Your task to perform on an android device: check google app version Image 0: 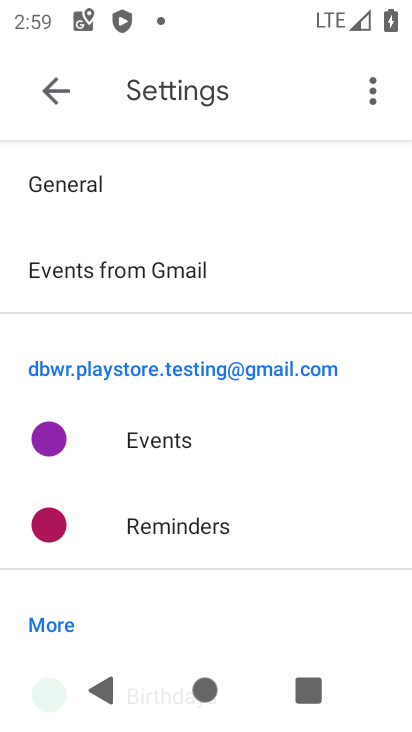
Step 0: press home button
Your task to perform on an android device: check google app version Image 1: 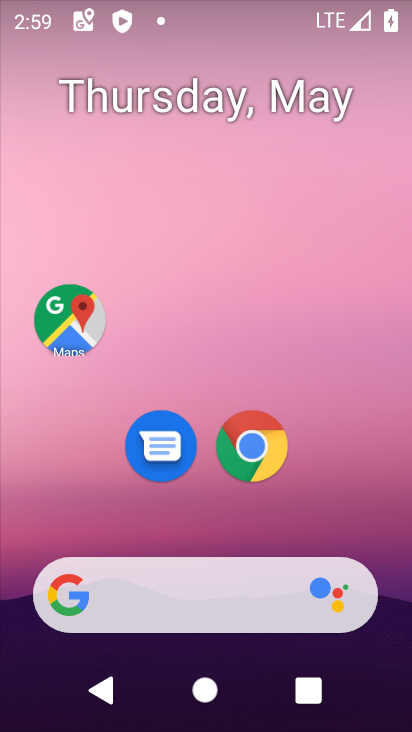
Step 1: drag from (213, 526) to (280, 120)
Your task to perform on an android device: check google app version Image 2: 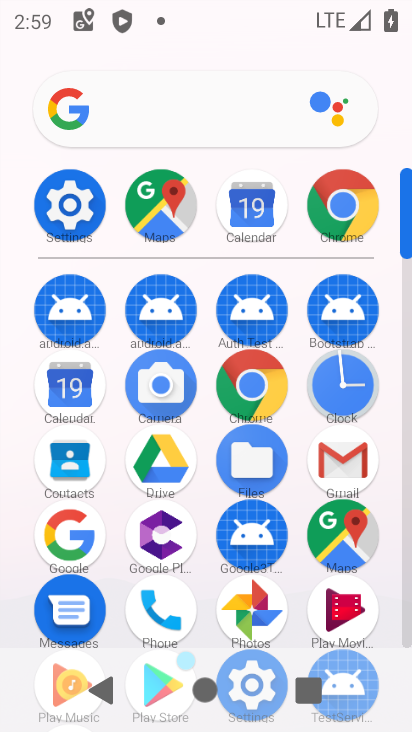
Step 2: click (72, 543)
Your task to perform on an android device: check google app version Image 3: 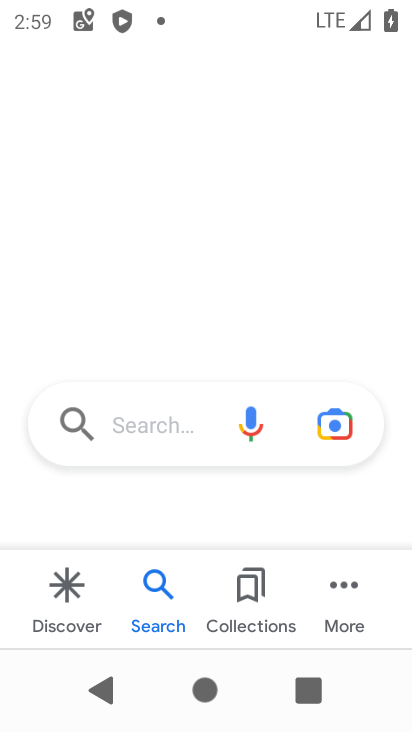
Step 3: click (359, 613)
Your task to perform on an android device: check google app version Image 4: 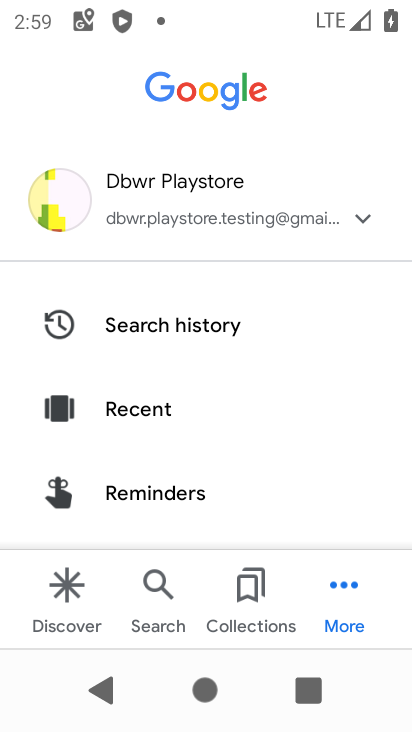
Step 4: drag from (171, 504) to (201, 124)
Your task to perform on an android device: check google app version Image 5: 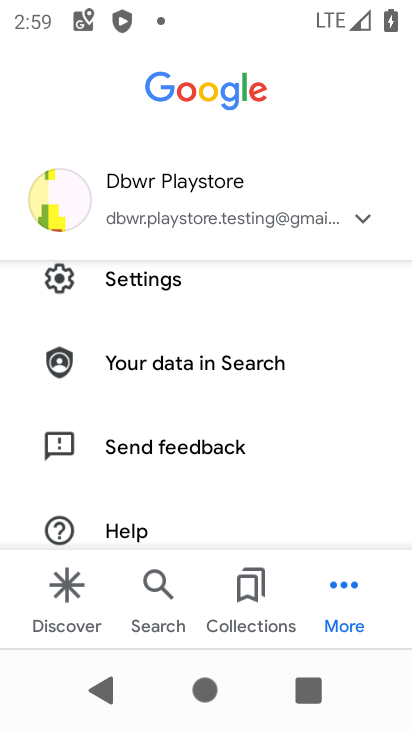
Step 5: click (169, 307)
Your task to perform on an android device: check google app version Image 6: 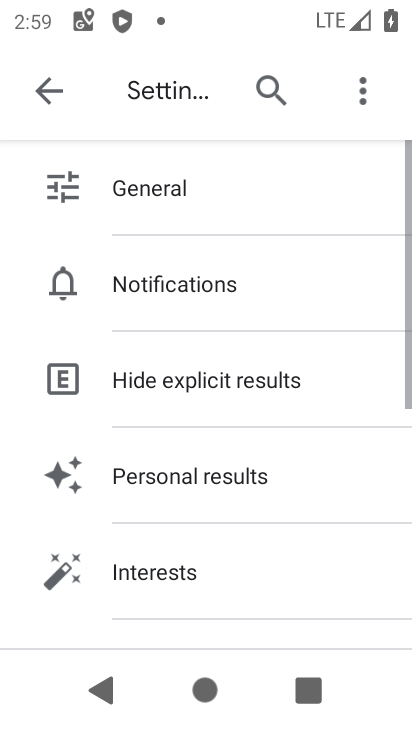
Step 6: drag from (209, 548) to (253, 248)
Your task to perform on an android device: check google app version Image 7: 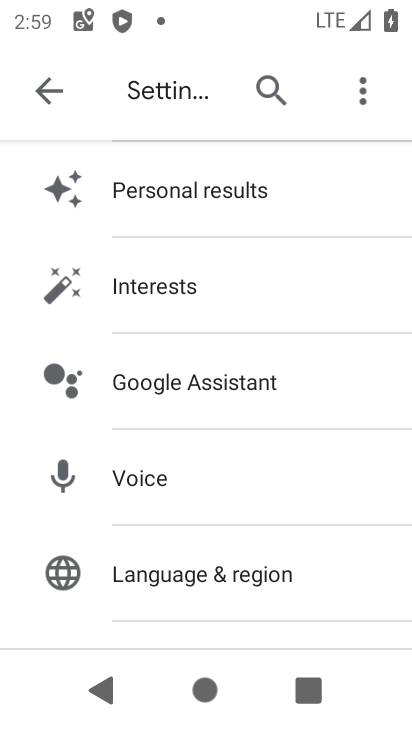
Step 7: drag from (210, 592) to (241, 314)
Your task to perform on an android device: check google app version Image 8: 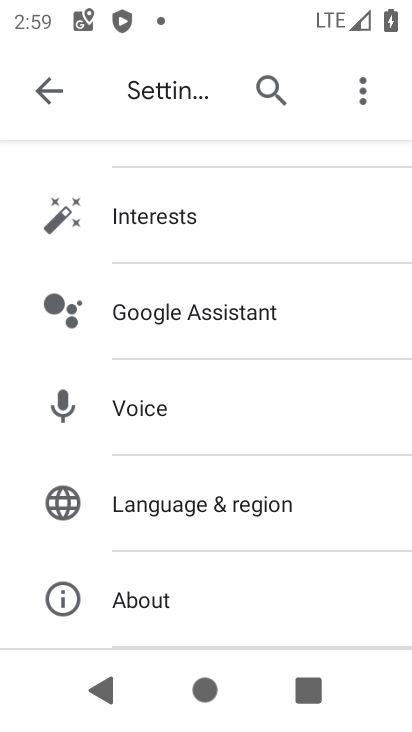
Step 8: click (137, 594)
Your task to perform on an android device: check google app version Image 9: 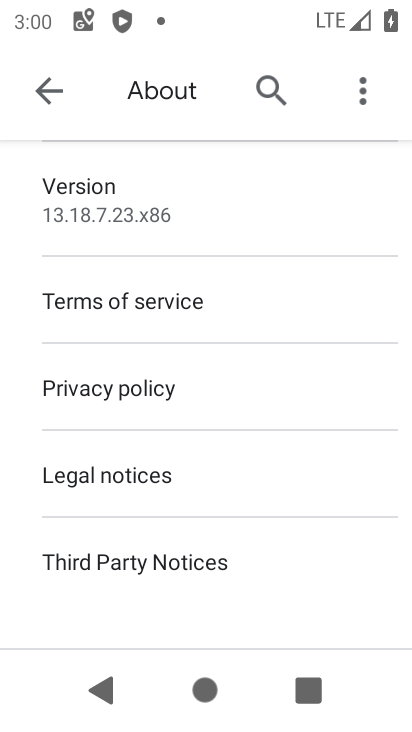
Step 9: click (142, 215)
Your task to perform on an android device: check google app version Image 10: 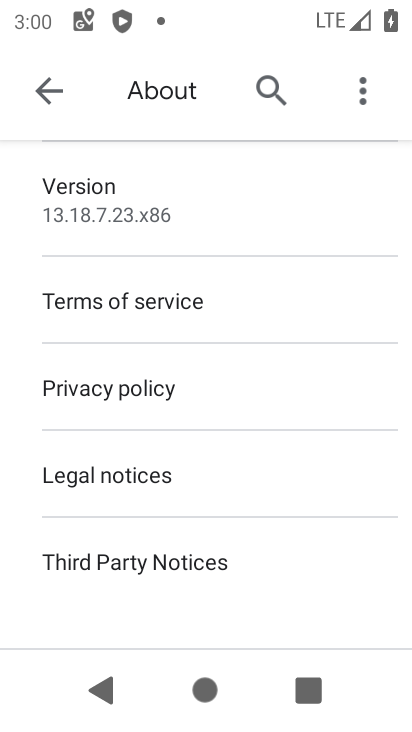
Step 10: task complete